Your task to perform on an android device: change keyboard looks Image 0: 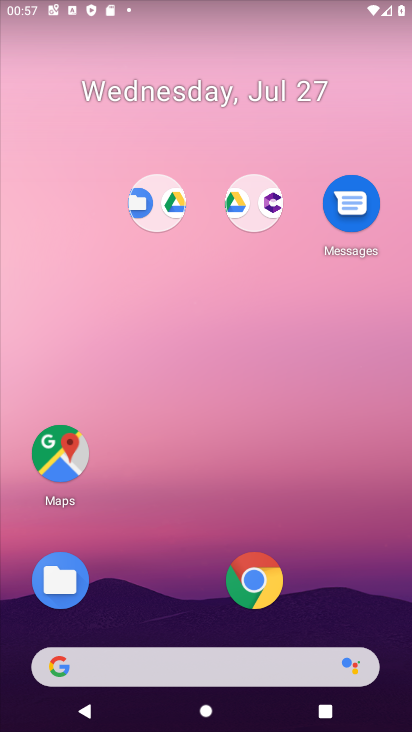
Step 0: drag from (176, 634) to (219, 84)
Your task to perform on an android device: change keyboard looks Image 1: 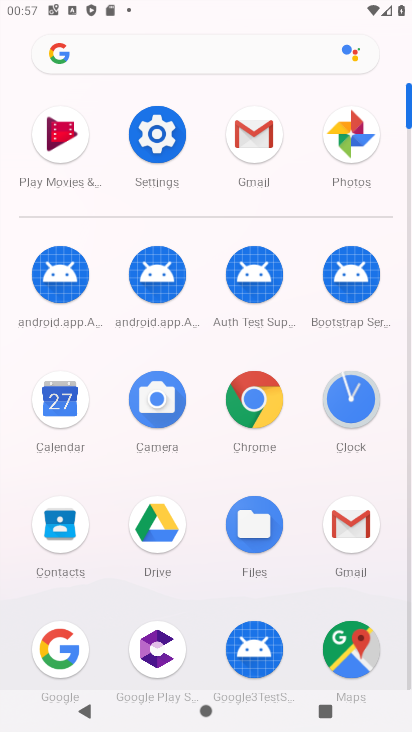
Step 1: click (158, 150)
Your task to perform on an android device: change keyboard looks Image 2: 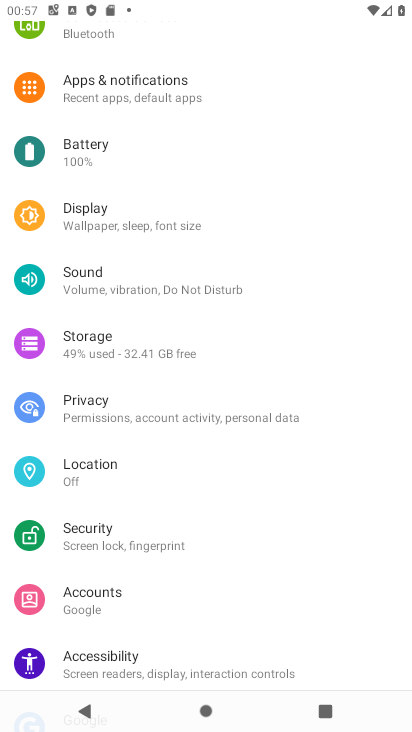
Step 2: drag from (127, 637) to (137, 218)
Your task to perform on an android device: change keyboard looks Image 3: 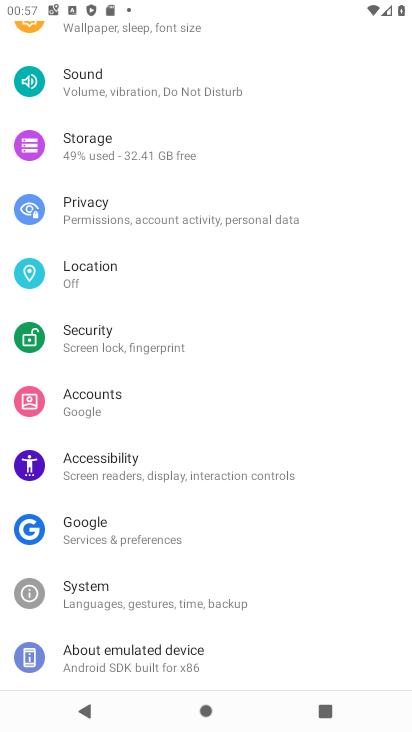
Step 3: drag from (152, 644) to (182, 232)
Your task to perform on an android device: change keyboard looks Image 4: 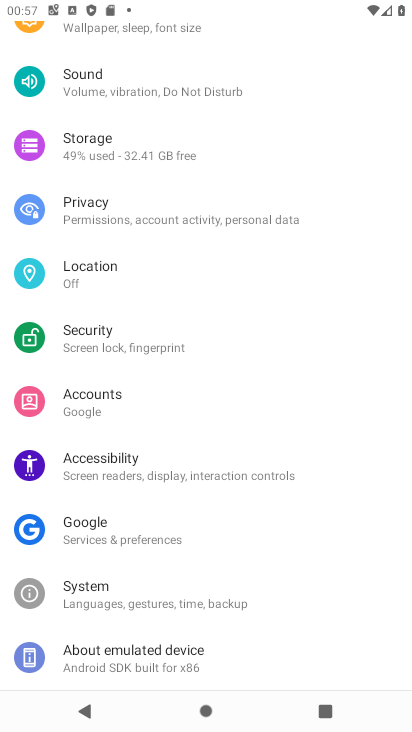
Step 4: drag from (180, 75) to (165, 615)
Your task to perform on an android device: change keyboard looks Image 5: 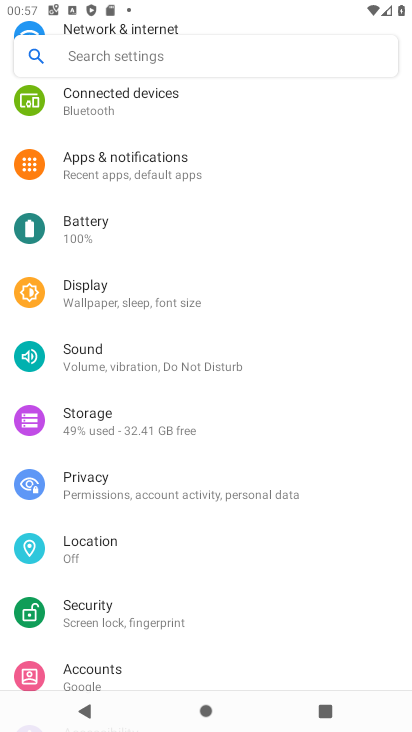
Step 5: drag from (201, 196) to (155, 623)
Your task to perform on an android device: change keyboard looks Image 6: 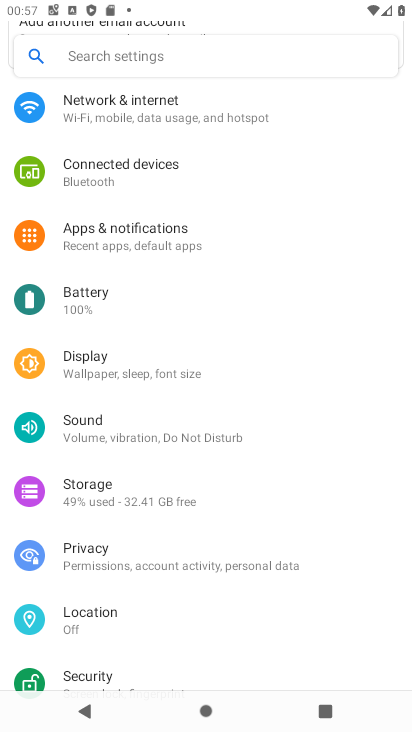
Step 6: drag from (195, 121) to (177, 562)
Your task to perform on an android device: change keyboard looks Image 7: 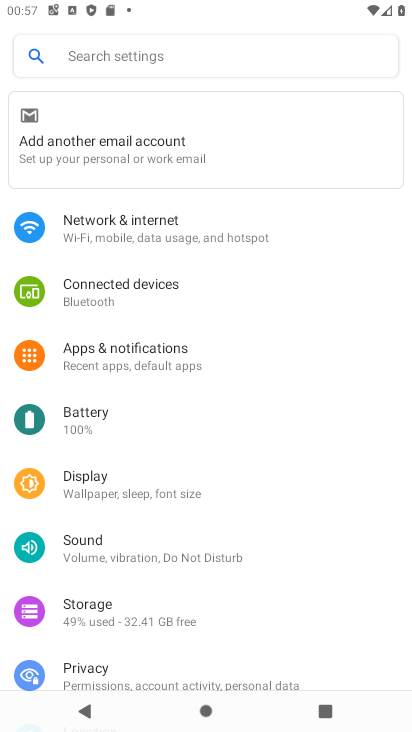
Step 7: drag from (119, 639) to (213, 193)
Your task to perform on an android device: change keyboard looks Image 8: 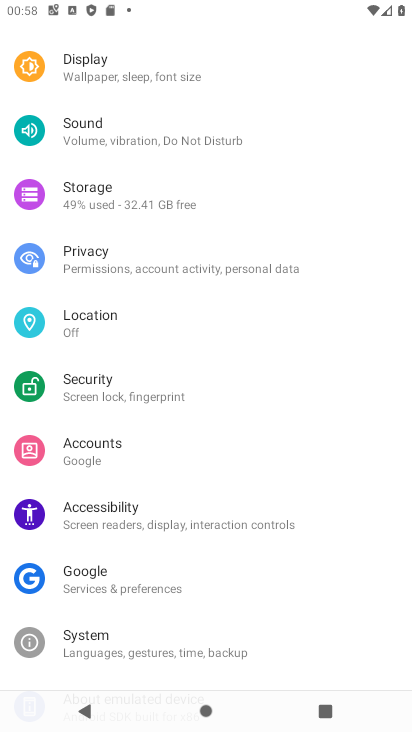
Step 8: click (124, 645)
Your task to perform on an android device: change keyboard looks Image 9: 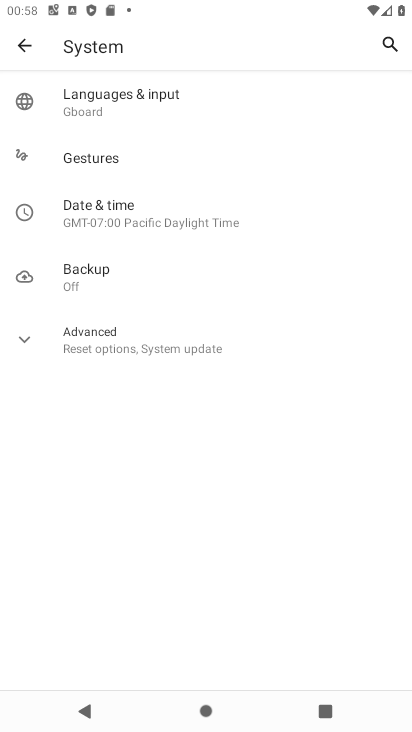
Step 9: click (186, 96)
Your task to perform on an android device: change keyboard looks Image 10: 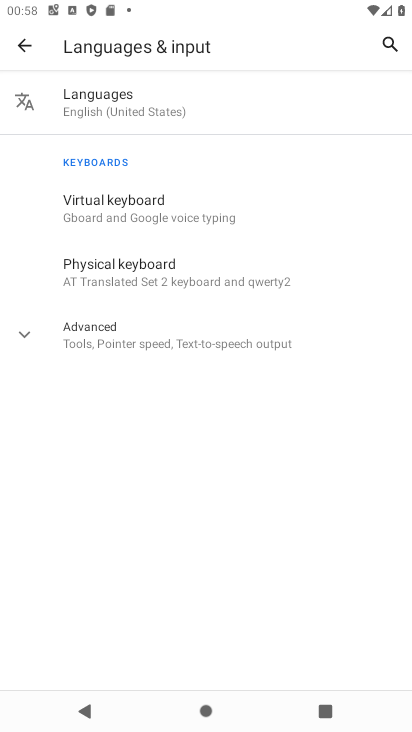
Step 10: click (104, 341)
Your task to perform on an android device: change keyboard looks Image 11: 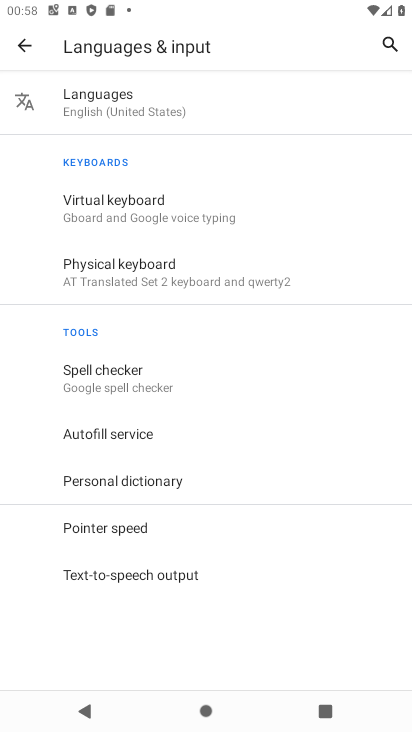
Step 11: click (140, 199)
Your task to perform on an android device: change keyboard looks Image 12: 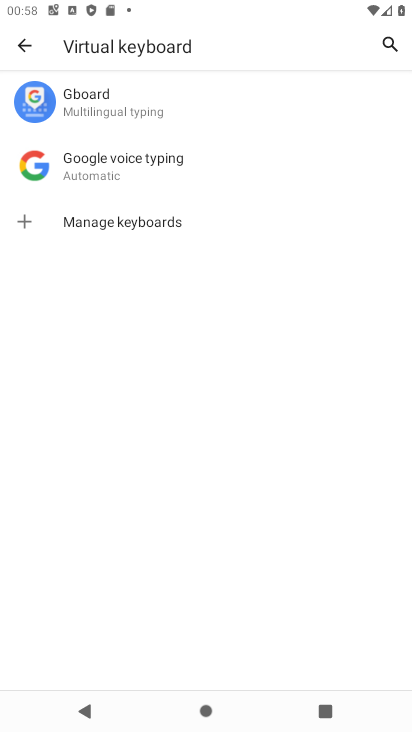
Step 12: click (88, 104)
Your task to perform on an android device: change keyboard looks Image 13: 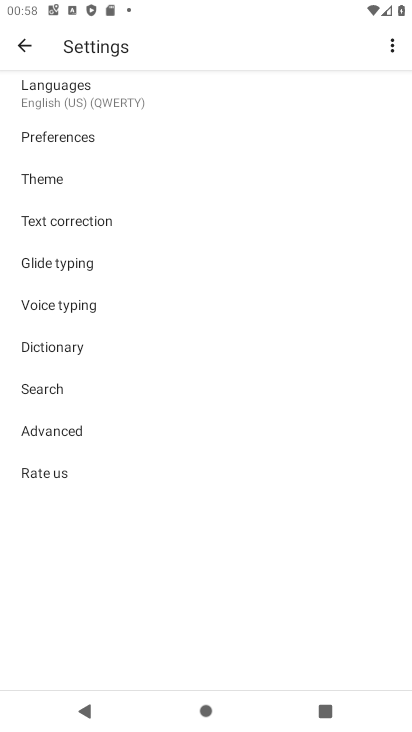
Step 13: click (53, 188)
Your task to perform on an android device: change keyboard looks Image 14: 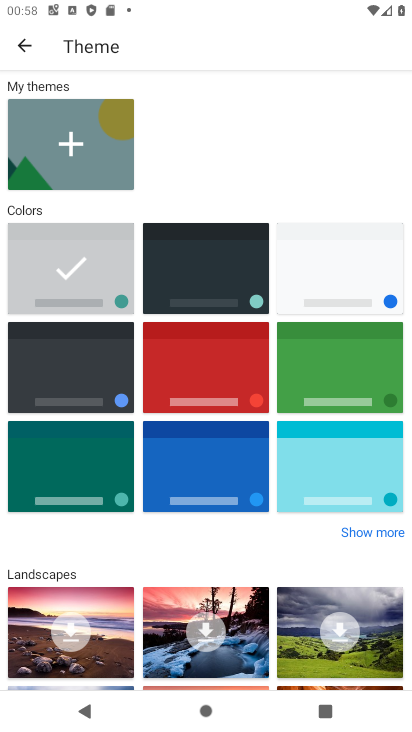
Step 14: click (286, 654)
Your task to perform on an android device: change keyboard looks Image 15: 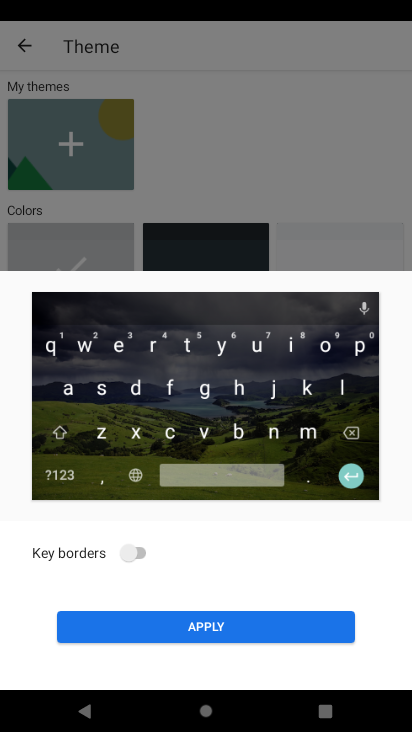
Step 15: click (262, 625)
Your task to perform on an android device: change keyboard looks Image 16: 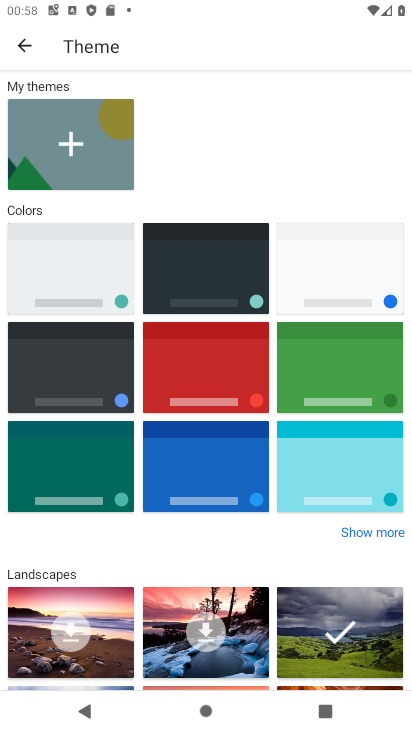
Step 16: task complete